Your task to perform on an android device: turn notification dots on Image 0: 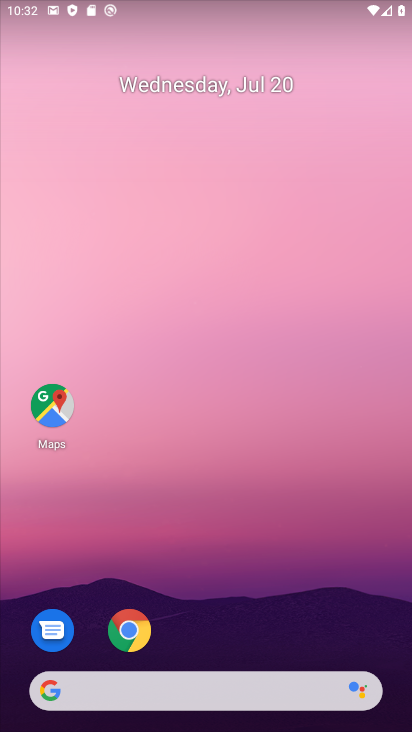
Step 0: drag from (202, 641) to (265, 171)
Your task to perform on an android device: turn notification dots on Image 1: 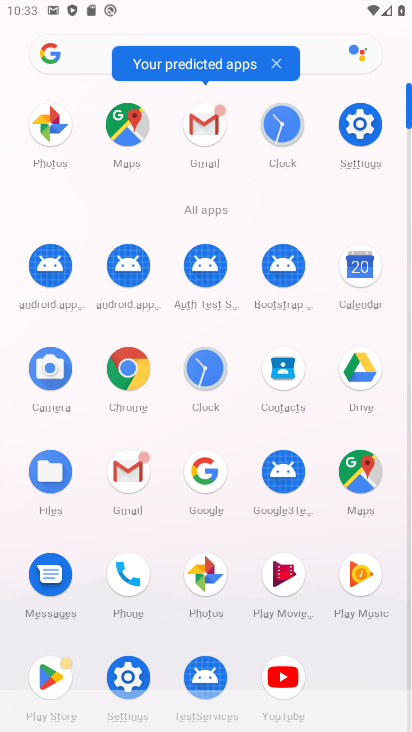
Step 1: click (359, 122)
Your task to perform on an android device: turn notification dots on Image 2: 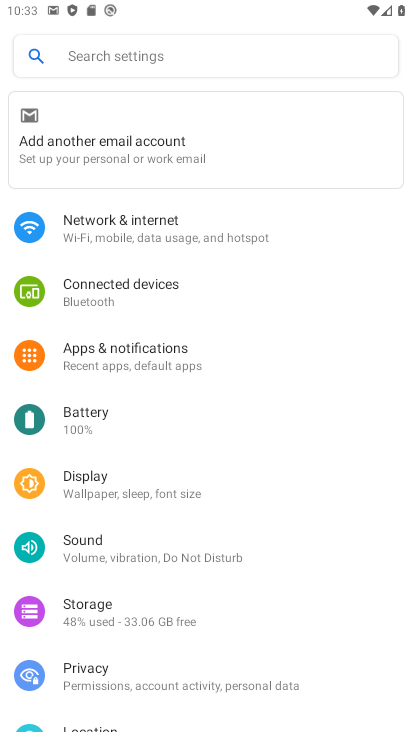
Step 2: click (143, 363)
Your task to perform on an android device: turn notification dots on Image 3: 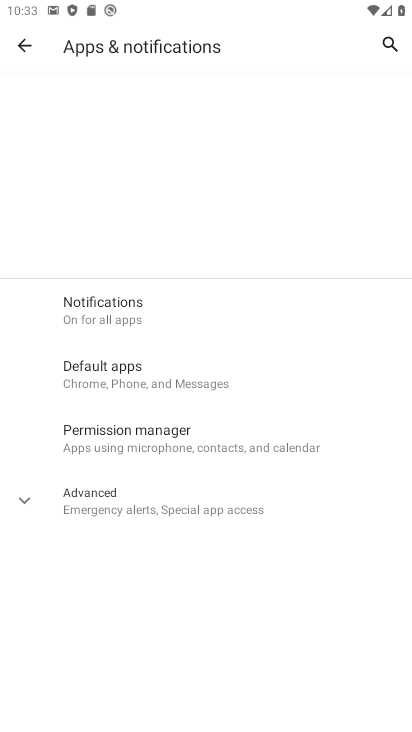
Step 3: click (126, 309)
Your task to perform on an android device: turn notification dots on Image 4: 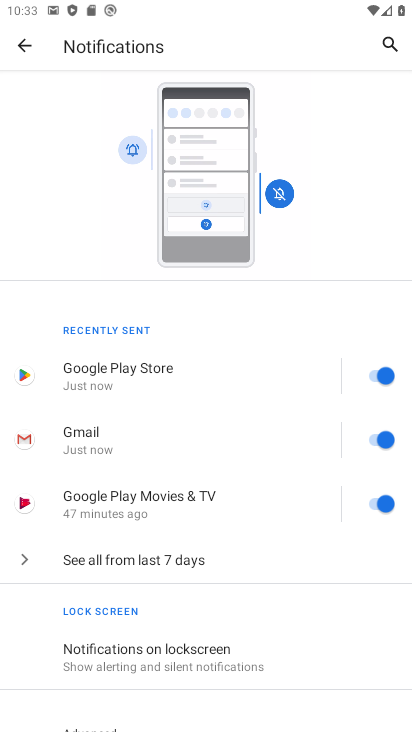
Step 4: drag from (250, 663) to (234, 186)
Your task to perform on an android device: turn notification dots on Image 5: 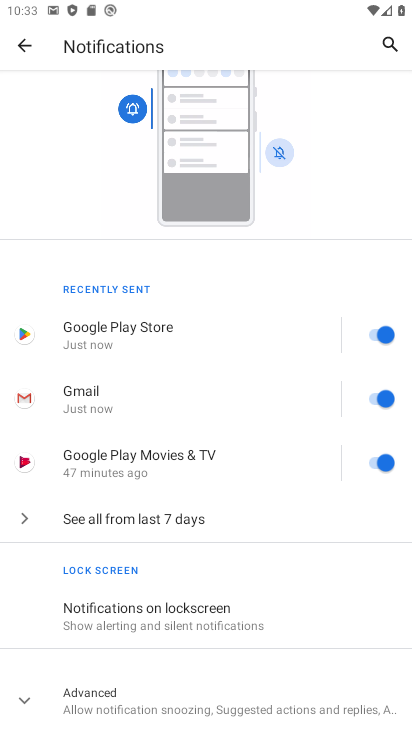
Step 5: click (110, 697)
Your task to perform on an android device: turn notification dots on Image 6: 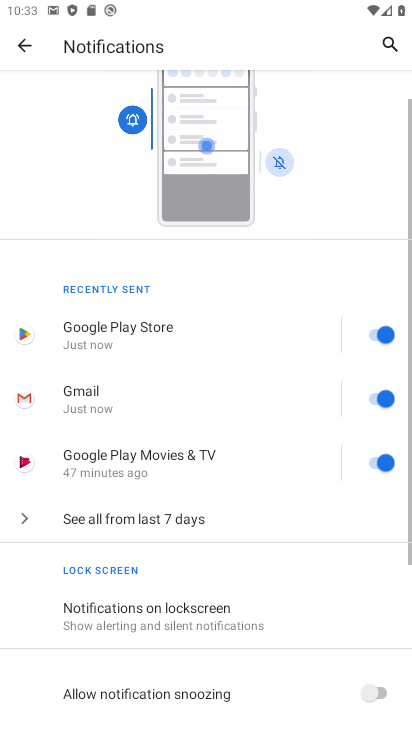
Step 6: task complete